Your task to perform on an android device: open app "LiveIn - Share Your Moment" (install if not already installed) Image 0: 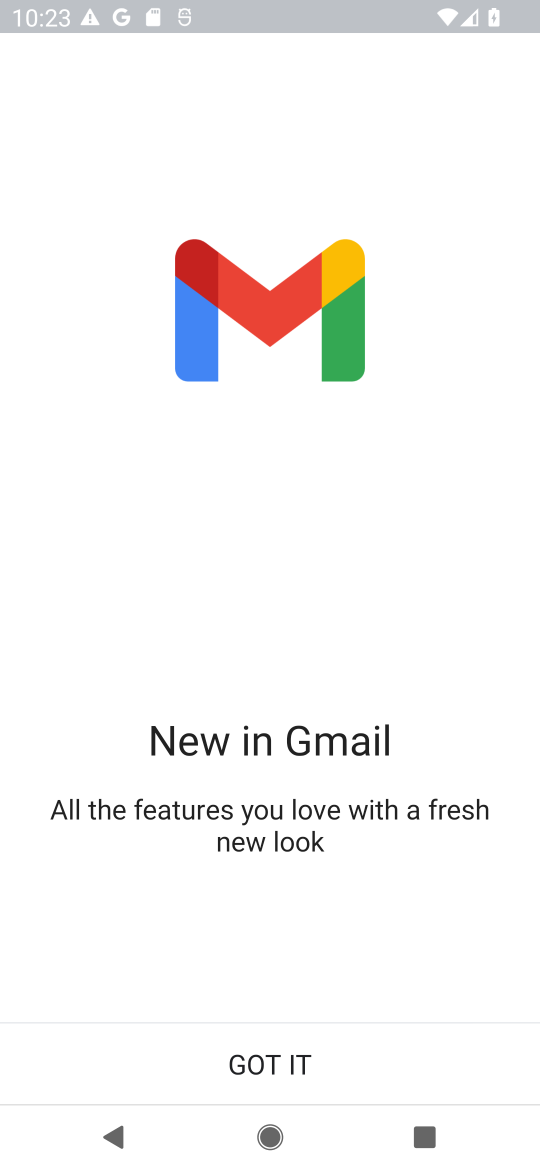
Step 0: press home button
Your task to perform on an android device: open app "LiveIn - Share Your Moment" (install if not already installed) Image 1: 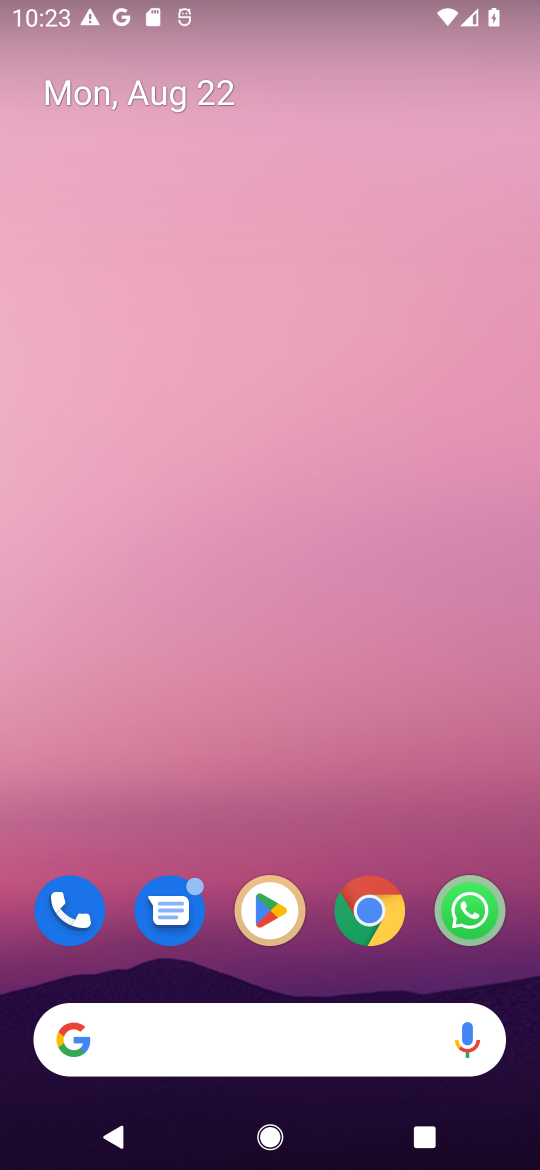
Step 1: click (280, 925)
Your task to perform on an android device: open app "LiveIn - Share Your Moment" (install if not already installed) Image 2: 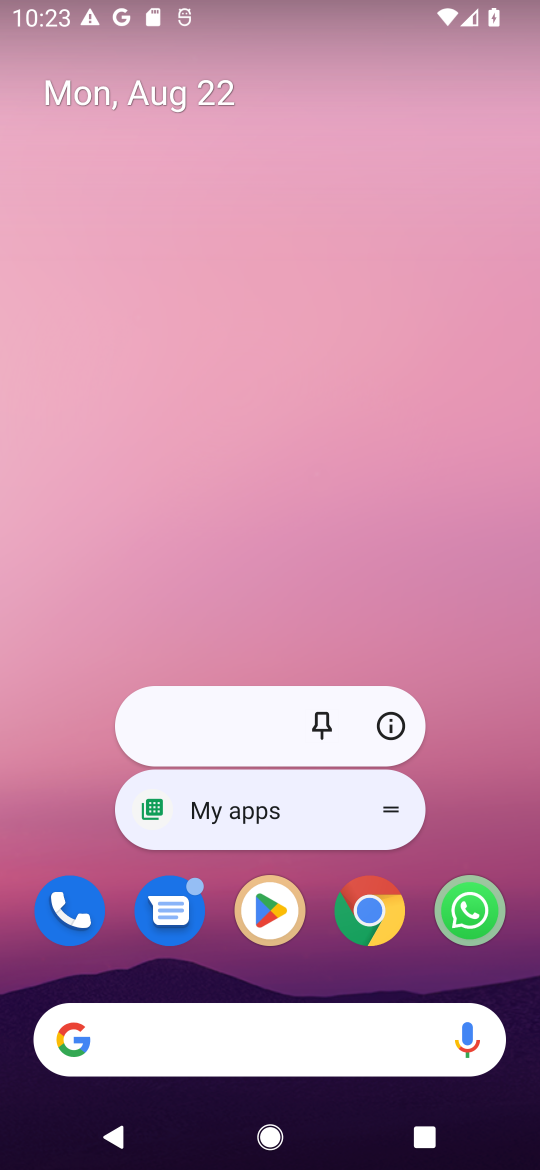
Step 2: click (257, 925)
Your task to perform on an android device: open app "LiveIn - Share Your Moment" (install if not already installed) Image 3: 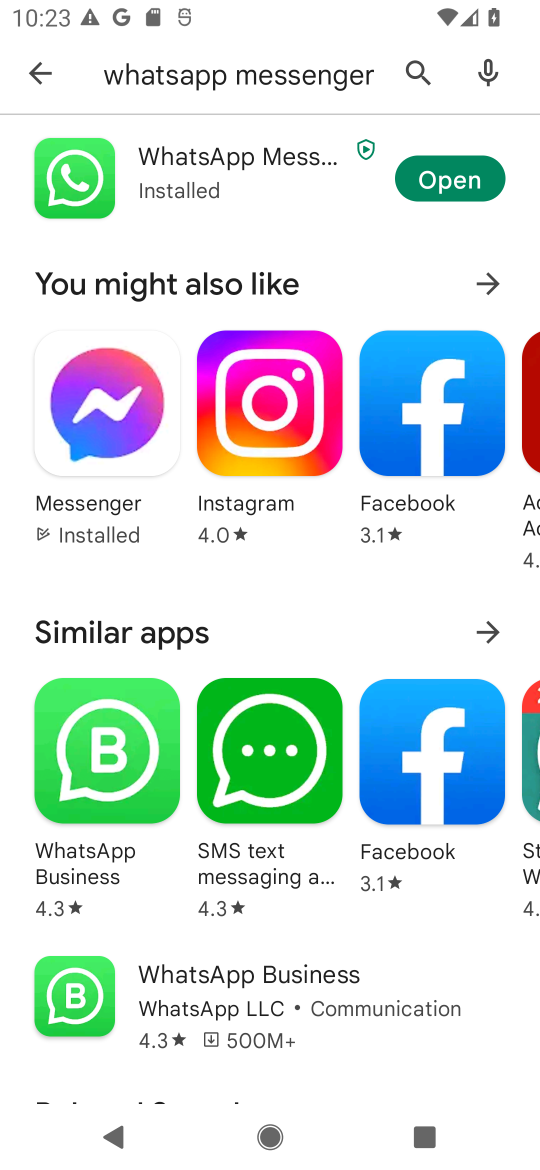
Step 3: click (412, 66)
Your task to perform on an android device: open app "LiveIn - Share Your Moment" (install if not already installed) Image 4: 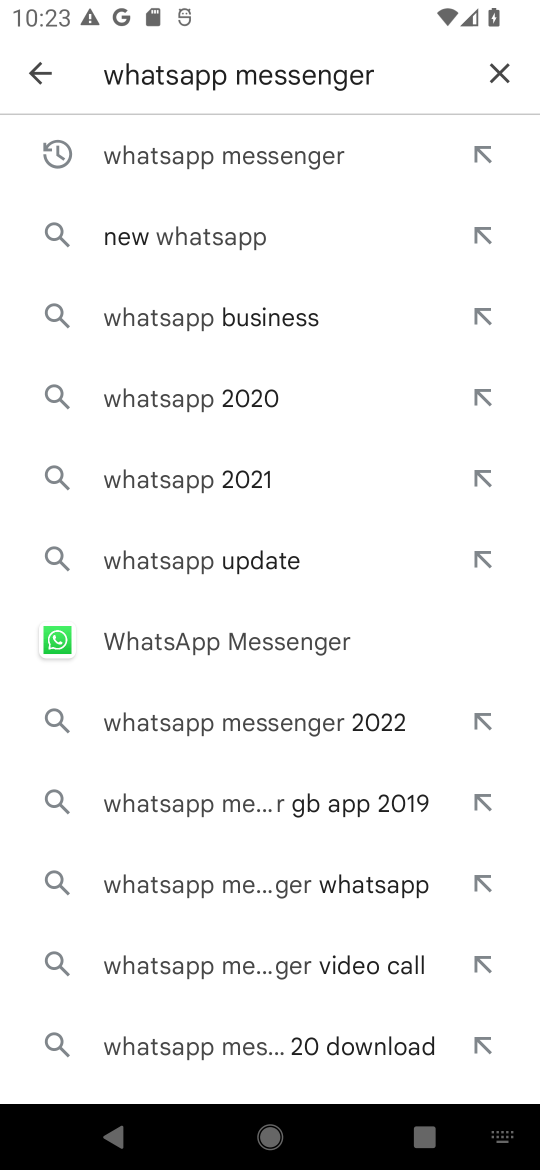
Step 4: click (493, 68)
Your task to perform on an android device: open app "LiveIn - Share Your Moment" (install if not already installed) Image 5: 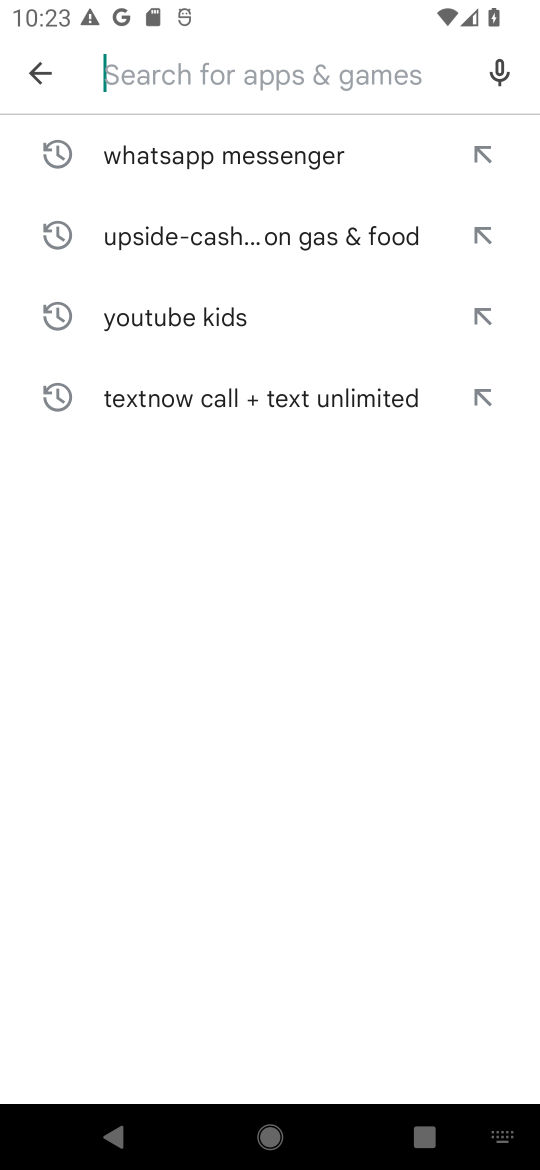
Step 5: type "LiveIn - Share Your Moment"
Your task to perform on an android device: open app "LiveIn - Share Your Moment" (install if not already installed) Image 6: 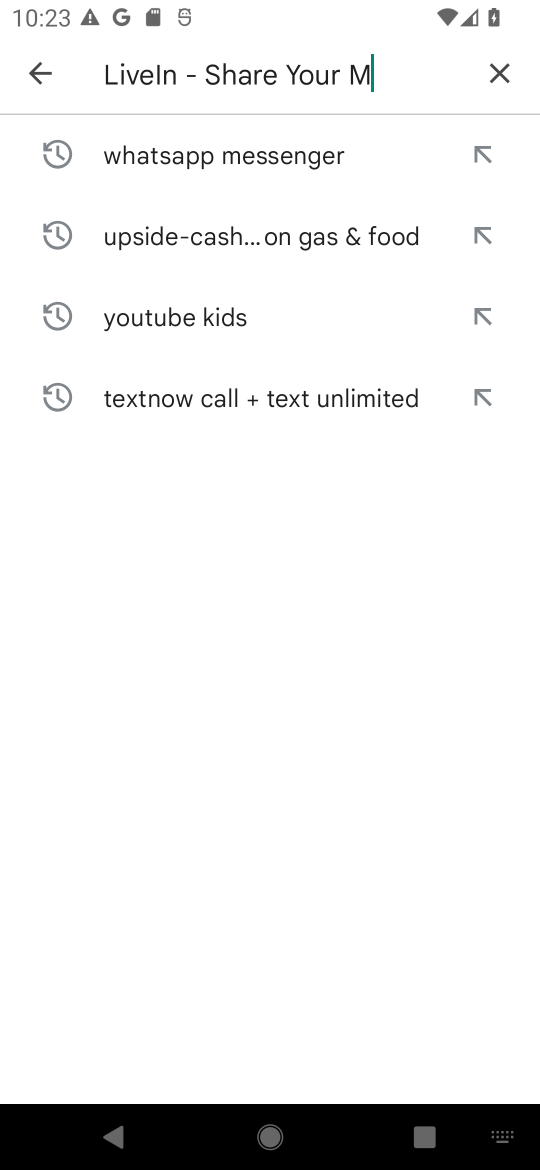
Step 6: type ""
Your task to perform on an android device: open app "LiveIn - Share Your Moment" (install if not already installed) Image 7: 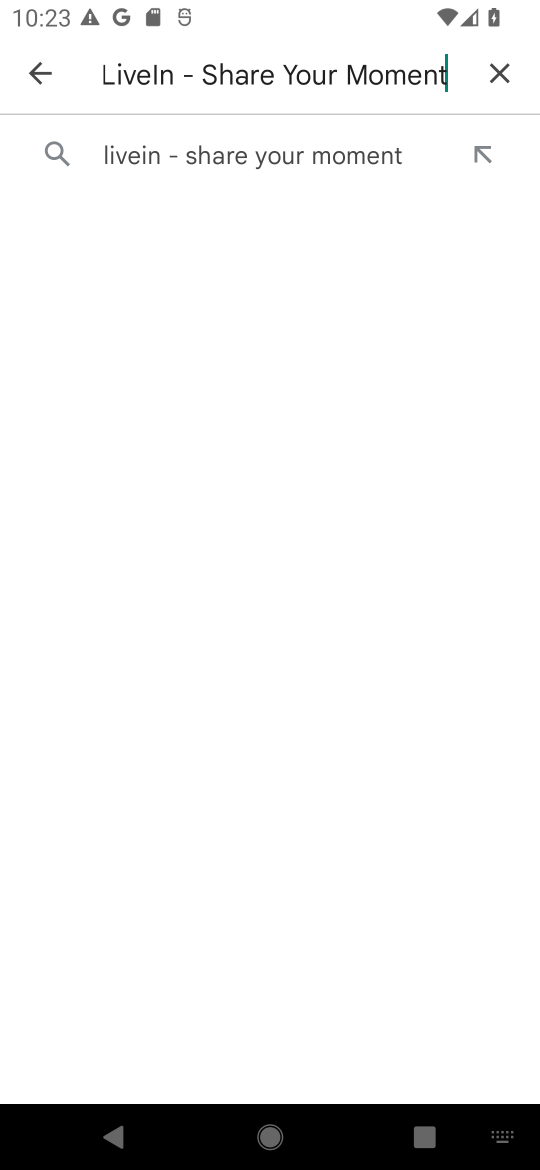
Step 7: click (302, 156)
Your task to perform on an android device: open app "LiveIn - Share Your Moment" (install if not already installed) Image 8: 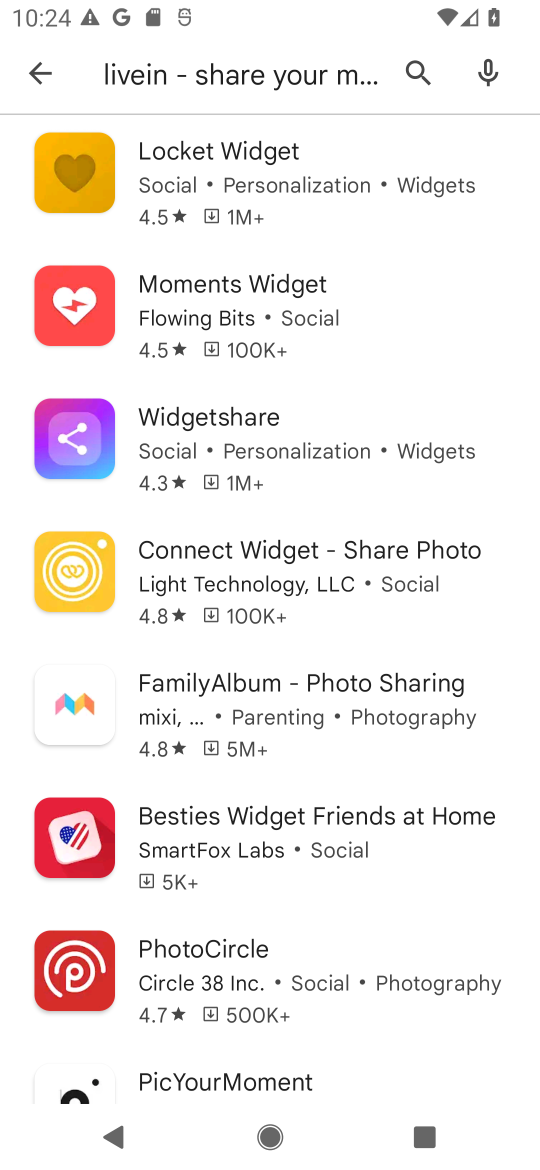
Step 8: task complete